Your task to perform on an android device: Open Android settings Image 0: 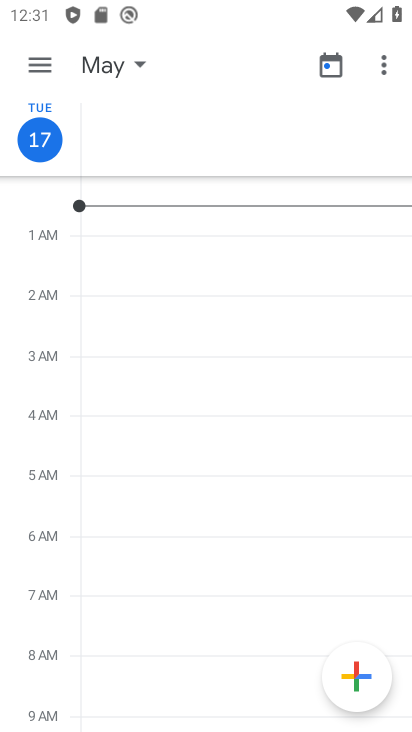
Step 0: press home button
Your task to perform on an android device: Open Android settings Image 1: 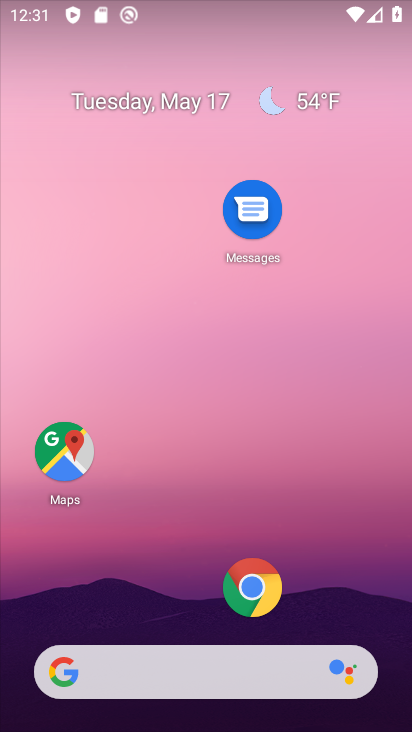
Step 1: drag from (176, 606) to (319, 7)
Your task to perform on an android device: Open Android settings Image 2: 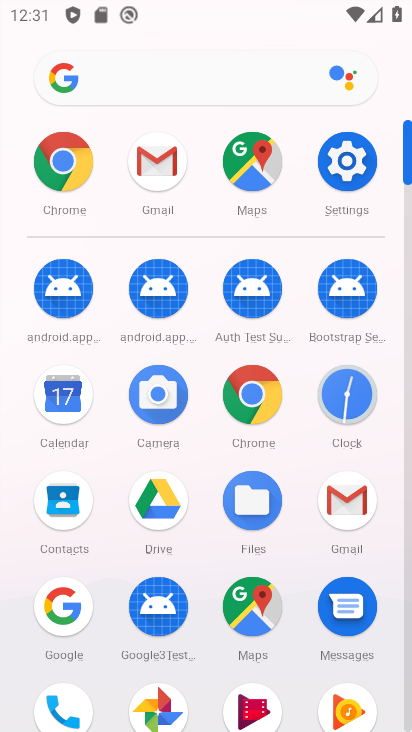
Step 2: click (351, 177)
Your task to perform on an android device: Open Android settings Image 3: 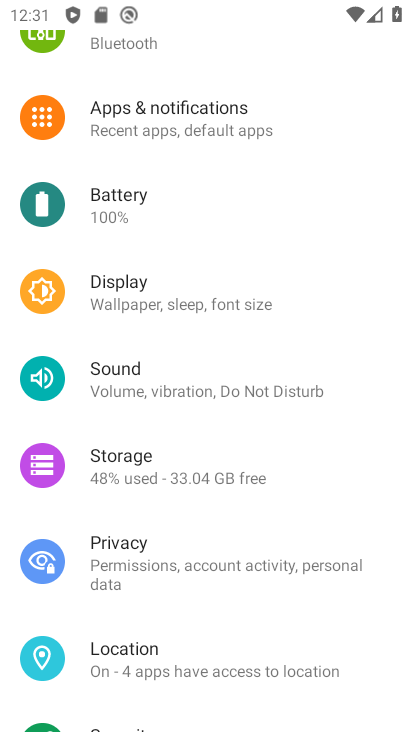
Step 3: drag from (188, 168) to (155, 690)
Your task to perform on an android device: Open Android settings Image 4: 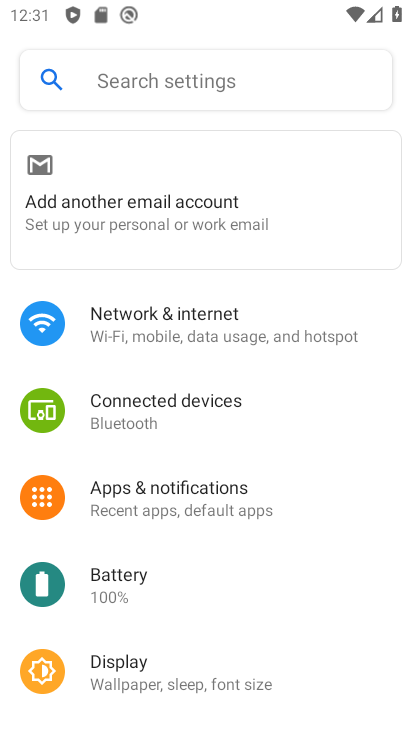
Step 4: drag from (187, 626) to (275, 113)
Your task to perform on an android device: Open Android settings Image 5: 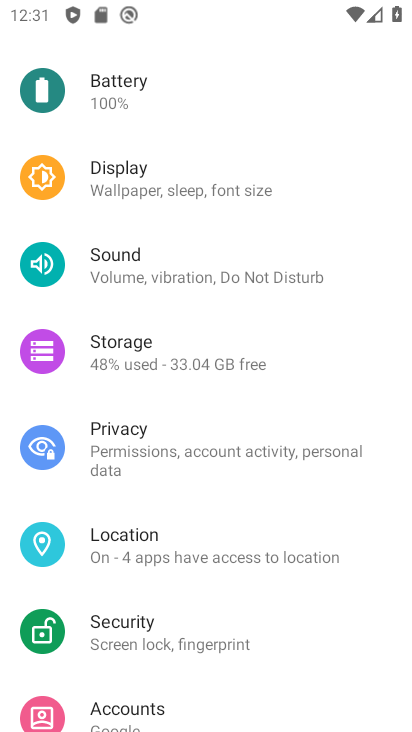
Step 5: drag from (289, 528) to (348, 51)
Your task to perform on an android device: Open Android settings Image 6: 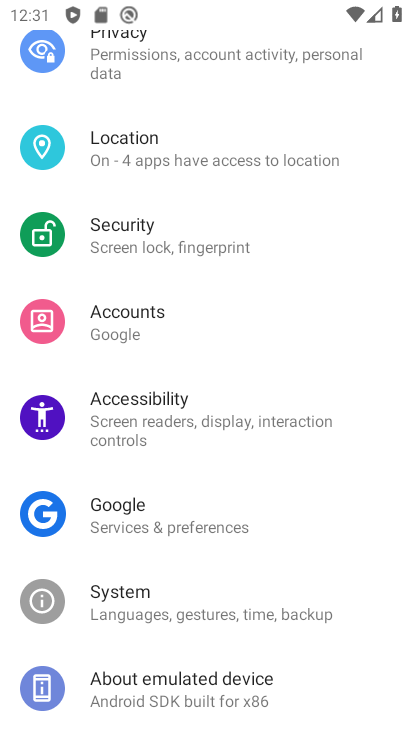
Step 6: drag from (250, 536) to (272, 60)
Your task to perform on an android device: Open Android settings Image 7: 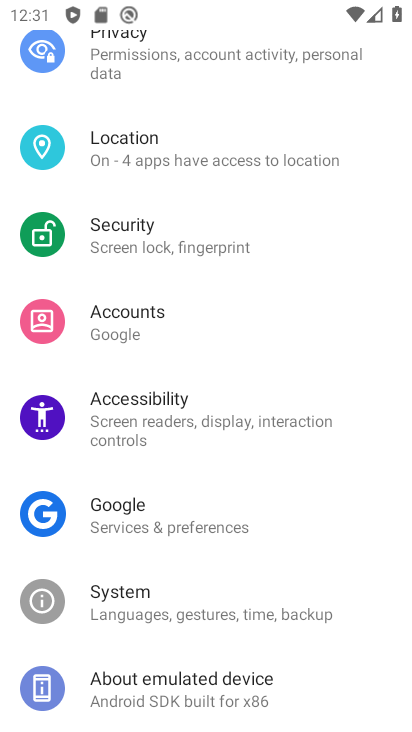
Step 7: drag from (151, 621) to (196, 449)
Your task to perform on an android device: Open Android settings Image 8: 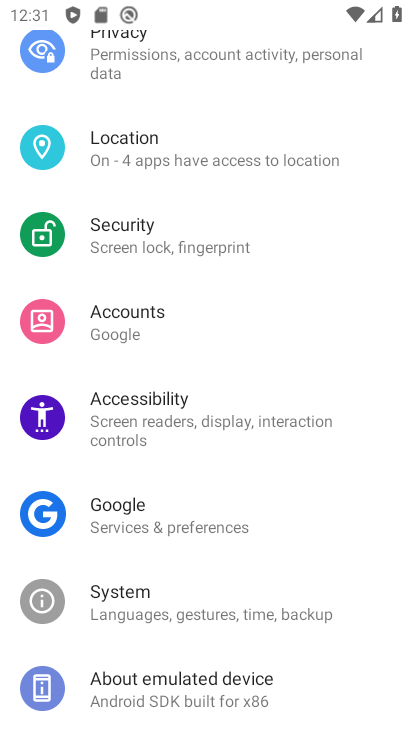
Step 8: click (194, 680)
Your task to perform on an android device: Open Android settings Image 9: 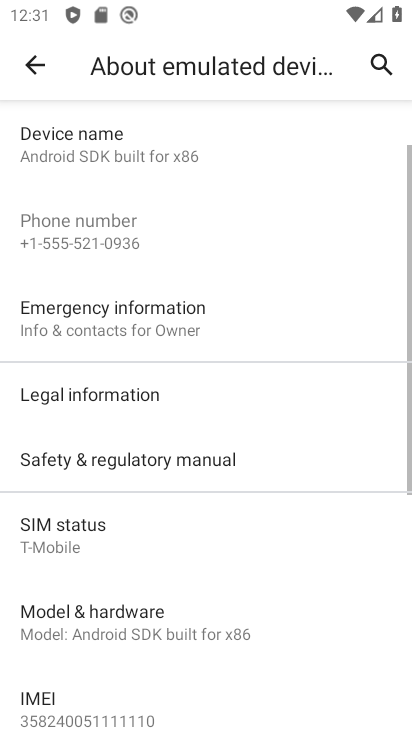
Step 9: drag from (202, 632) to (199, 265)
Your task to perform on an android device: Open Android settings Image 10: 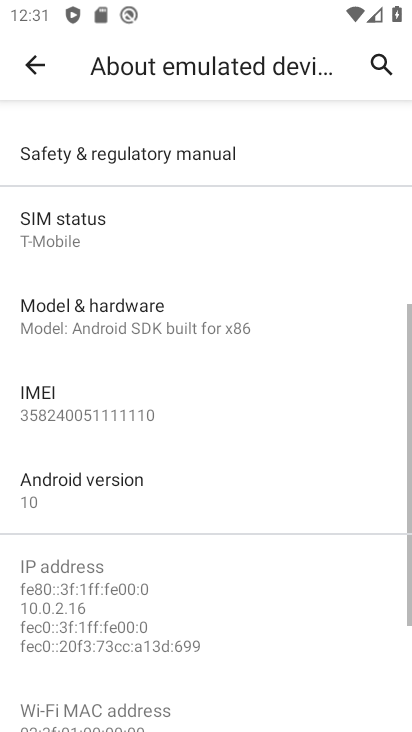
Step 10: click (98, 497)
Your task to perform on an android device: Open Android settings Image 11: 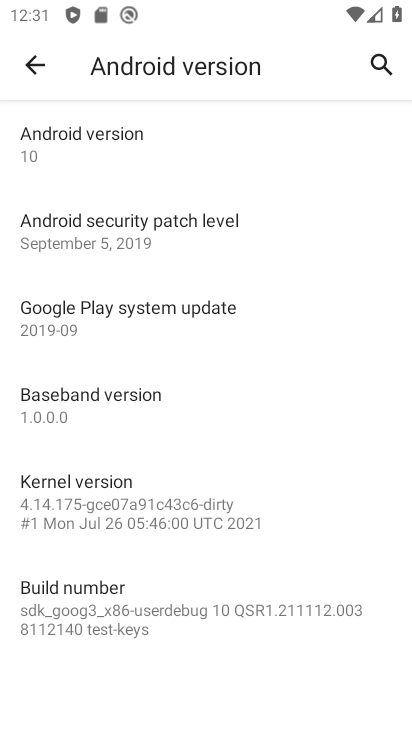
Step 11: task complete